Your task to perform on an android device: open app "Viber Messenger" Image 0: 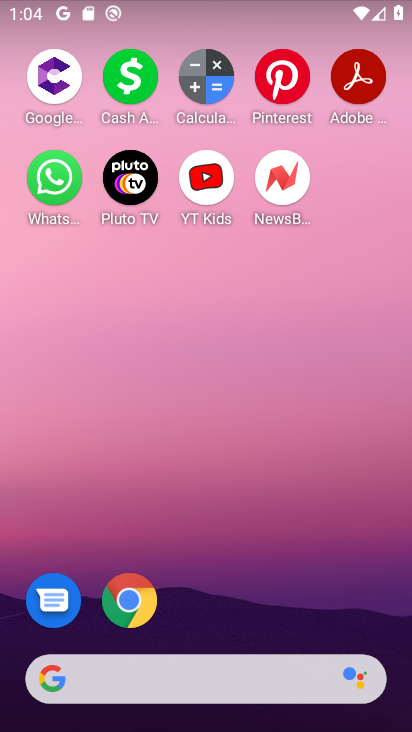
Step 0: drag from (207, 616) to (212, 154)
Your task to perform on an android device: open app "Viber Messenger" Image 1: 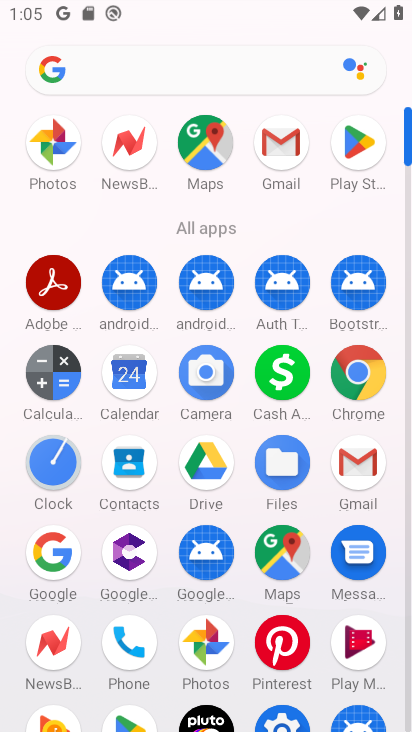
Step 1: click (353, 146)
Your task to perform on an android device: open app "Viber Messenger" Image 2: 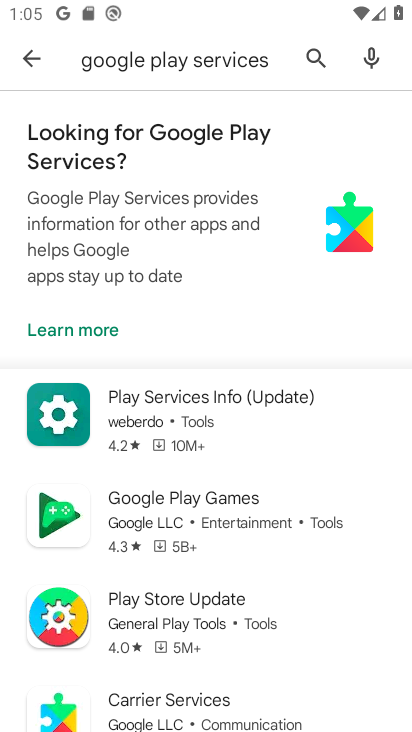
Step 2: click (310, 57)
Your task to perform on an android device: open app "Viber Messenger" Image 3: 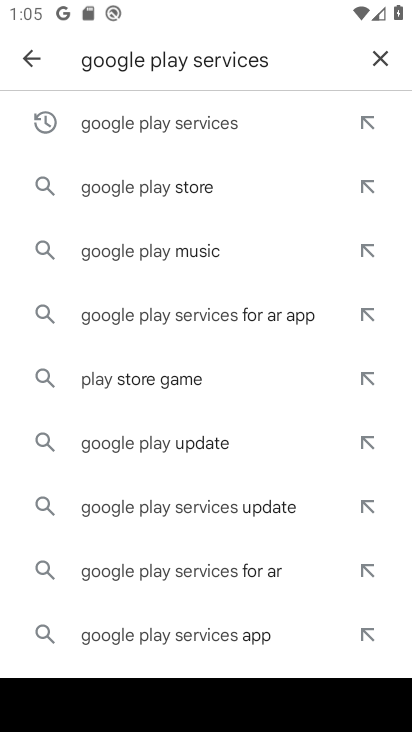
Step 3: click (378, 53)
Your task to perform on an android device: open app "Viber Messenger" Image 4: 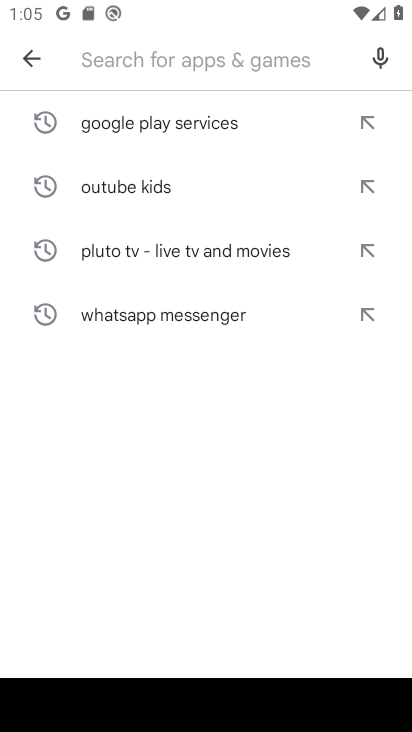
Step 4: type "Viber Messenger"
Your task to perform on an android device: open app "Viber Messenger" Image 5: 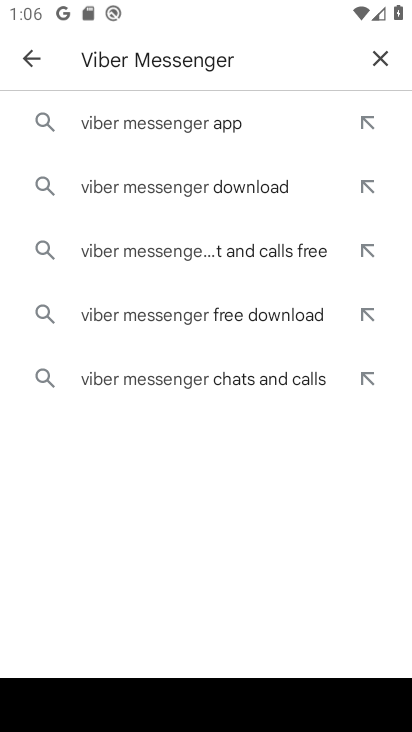
Step 5: click (173, 121)
Your task to perform on an android device: open app "Viber Messenger" Image 6: 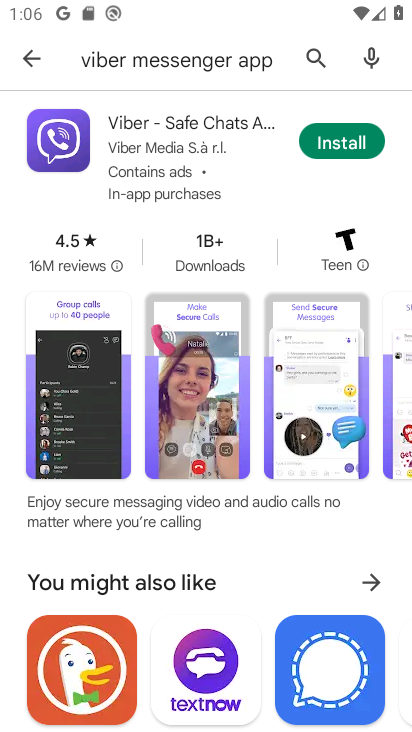
Step 6: task complete